Your task to perform on an android device: add a contact Image 0: 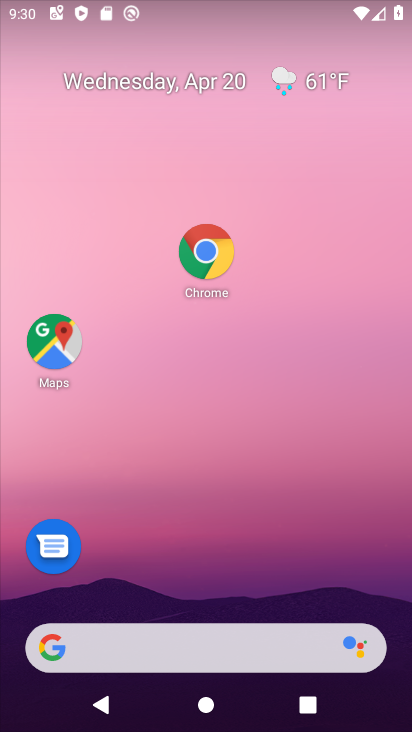
Step 0: drag from (197, 619) to (197, 273)
Your task to perform on an android device: add a contact Image 1: 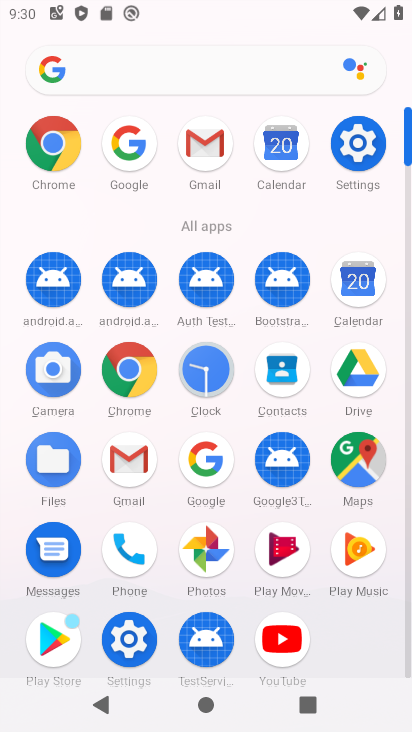
Step 1: click (284, 369)
Your task to perform on an android device: add a contact Image 2: 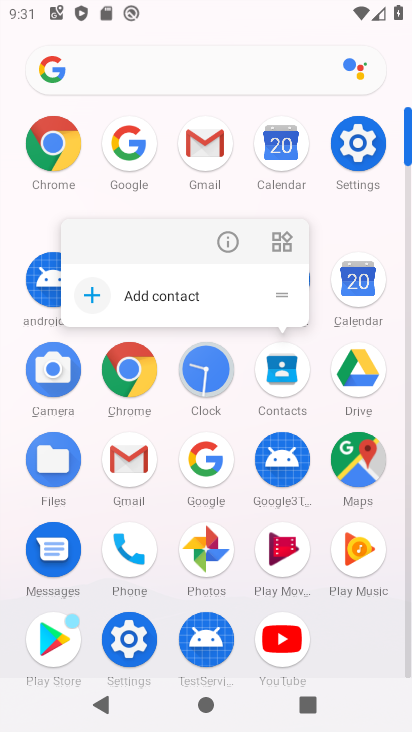
Step 2: click (280, 380)
Your task to perform on an android device: add a contact Image 3: 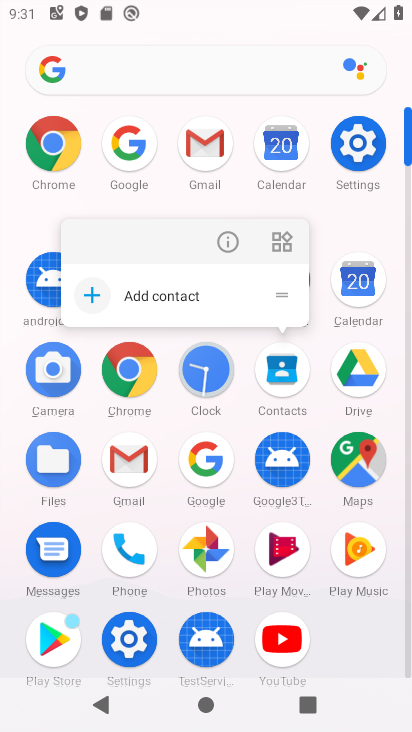
Step 3: click (280, 380)
Your task to perform on an android device: add a contact Image 4: 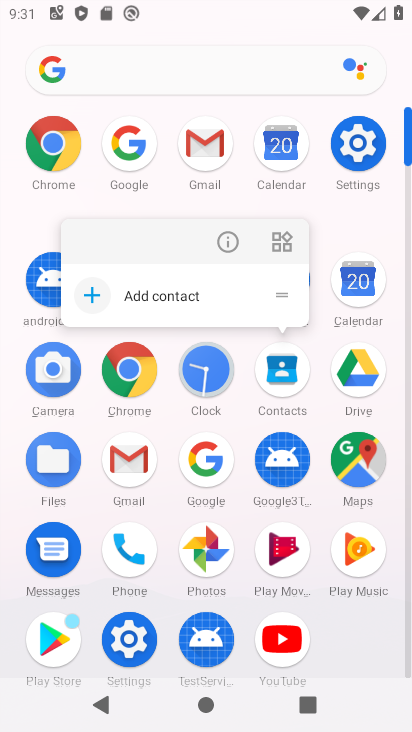
Step 4: click (280, 380)
Your task to perform on an android device: add a contact Image 5: 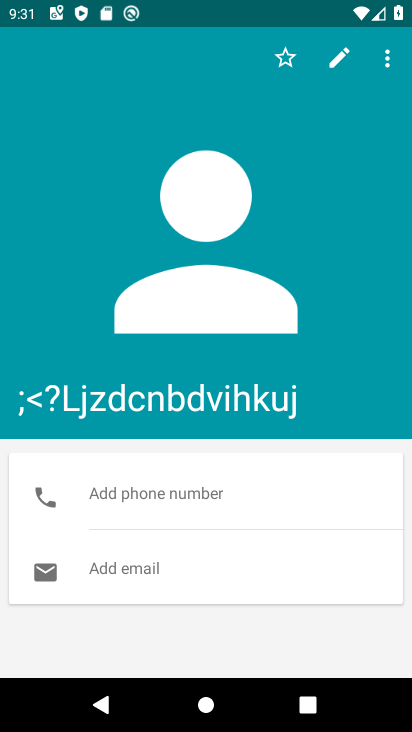
Step 5: task complete